Your task to perform on an android device: manage bookmarks in the chrome app Image 0: 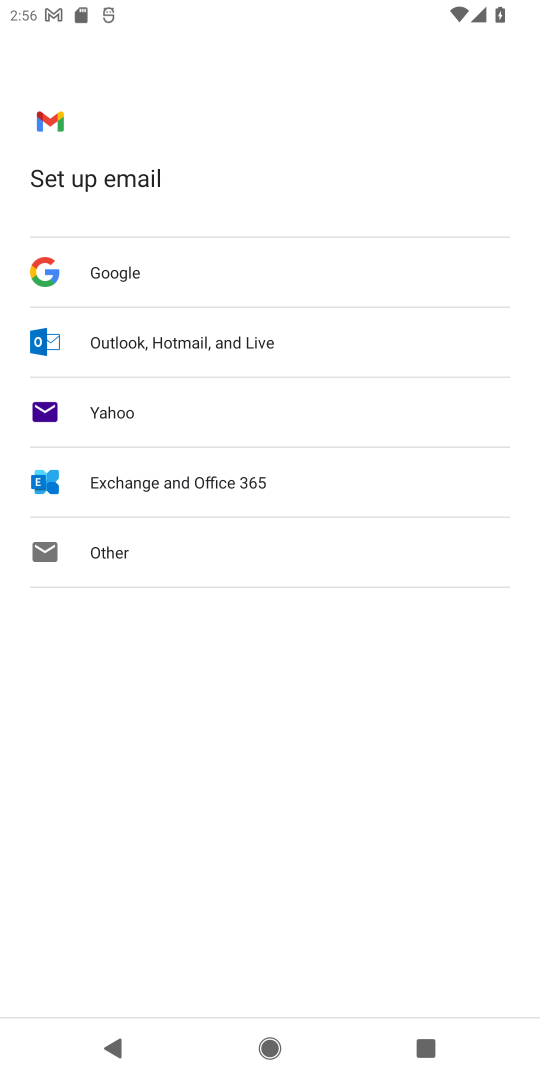
Step 0: press home button
Your task to perform on an android device: manage bookmarks in the chrome app Image 1: 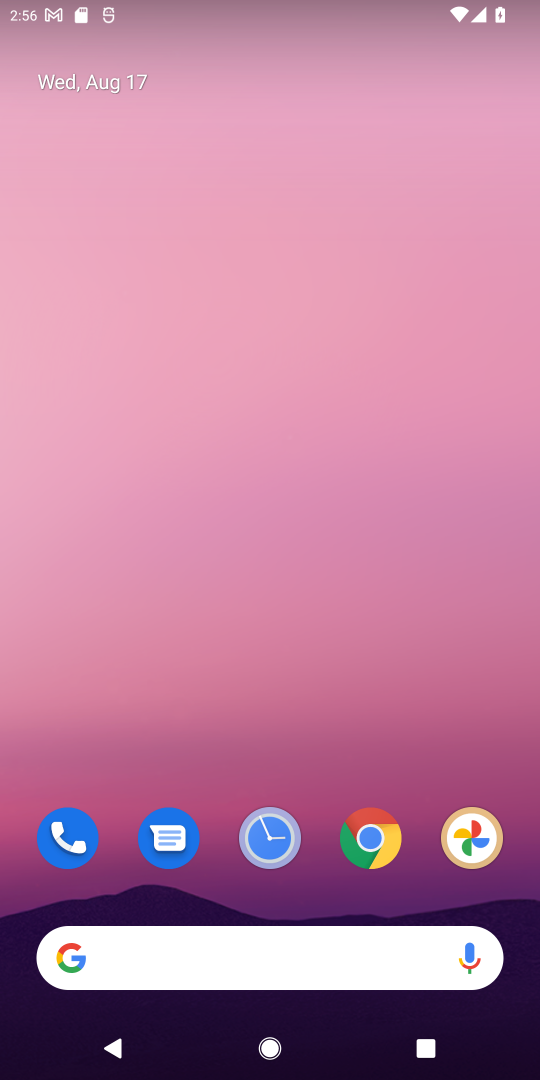
Step 1: click (372, 821)
Your task to perform on an android device: manage bookmarks in the chrome app Image 2: 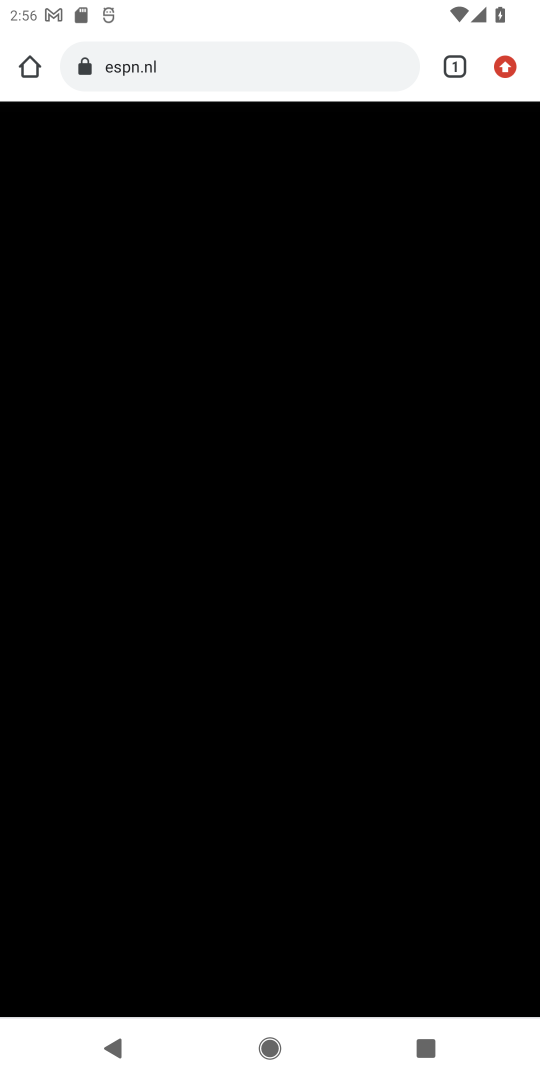
Step 2: click (505, 76)
Your task to perform on an android device: manage bookmarks in the chrome app Image 3: 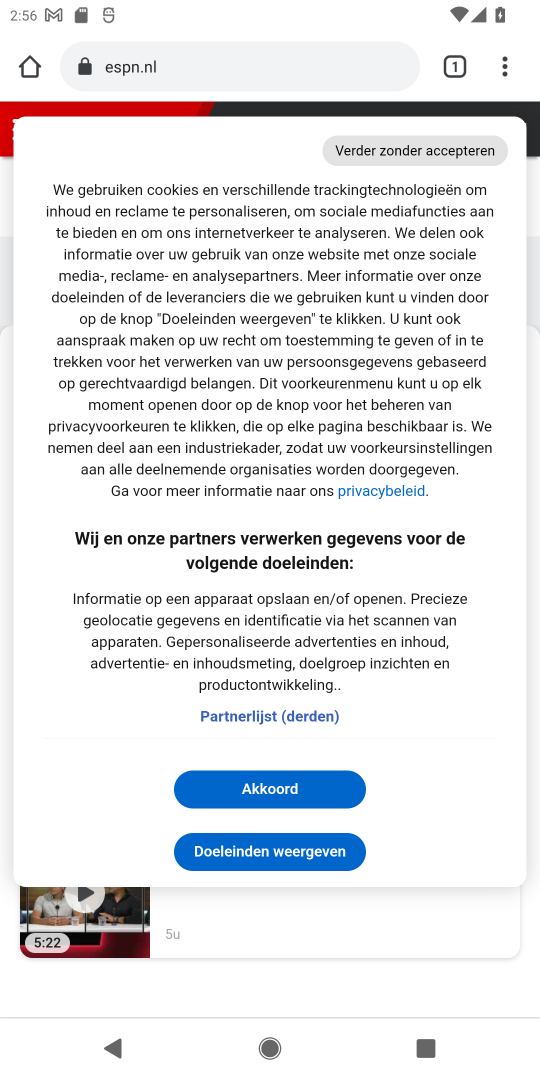
Step 3: click (505, 76)
Your task to perform on an android device: manage bookmarks in the chrome app Image 4: 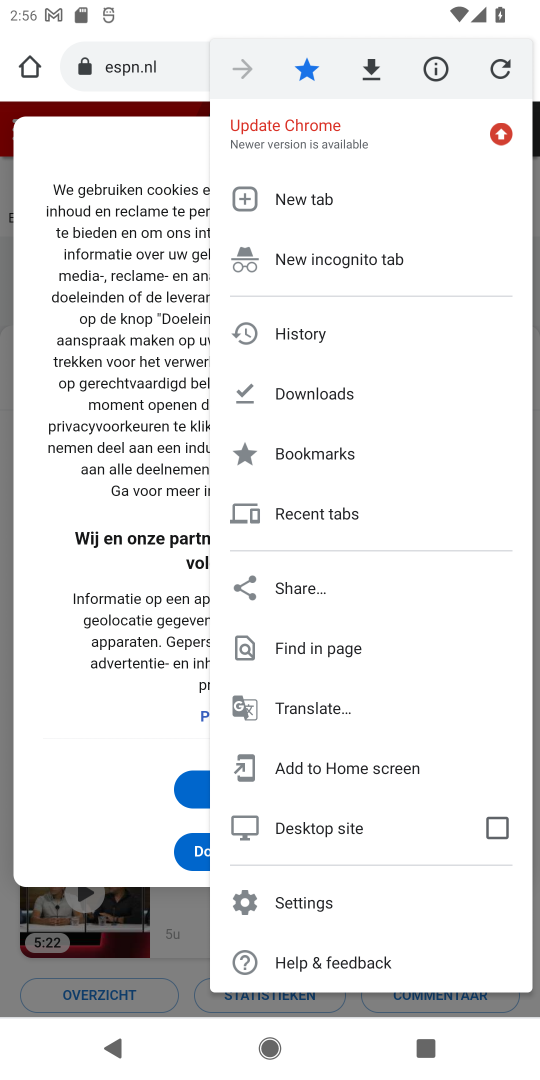
Step 4: click (298, 447)
Your task to perform on an android device: manage bookmarks in the chrome app Image 5: 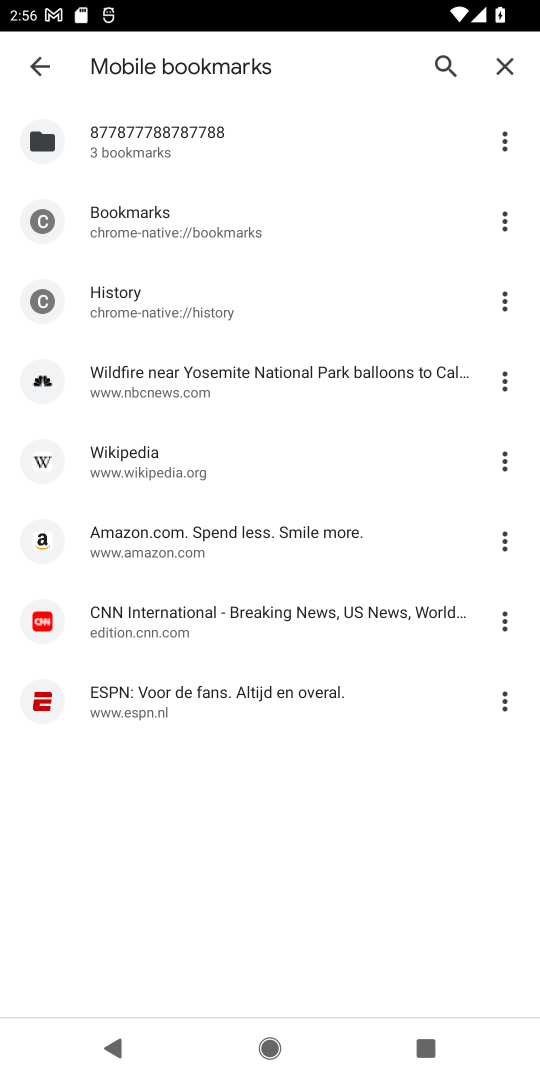
Step 5: task complete